Your task to perform on an android device: When is my next meeting? Image 0: 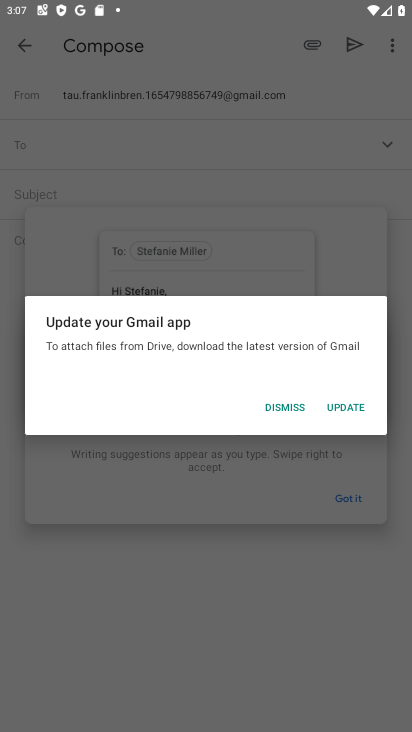
Step 0: press home button
Your task to perform on an android device: When is my next meeting? Image 1: 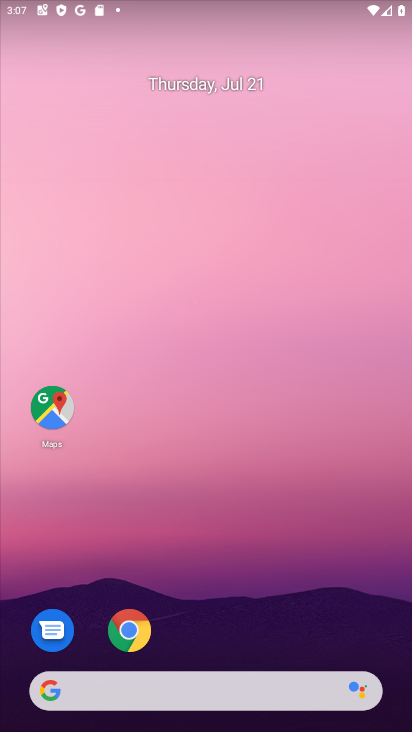
Step 1: drag from (265, 411) to (12, 166)
Your task to perform on an android device: When is my next meeting? Image 2: 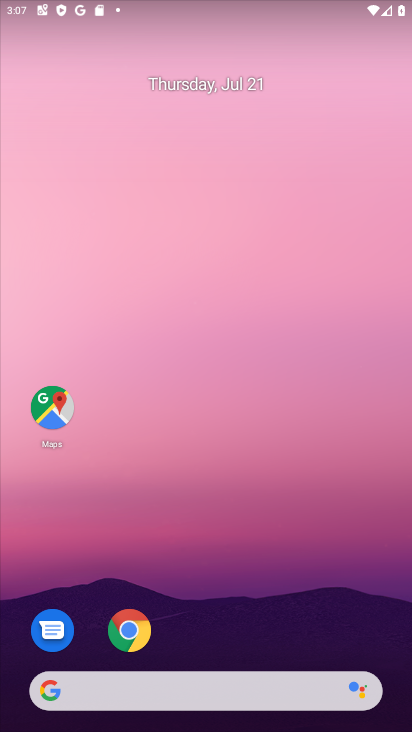
Step 2: drag from (275, 604) to (181, 13)
Your task to perform on an android device: When is my next meeting? Image 3: 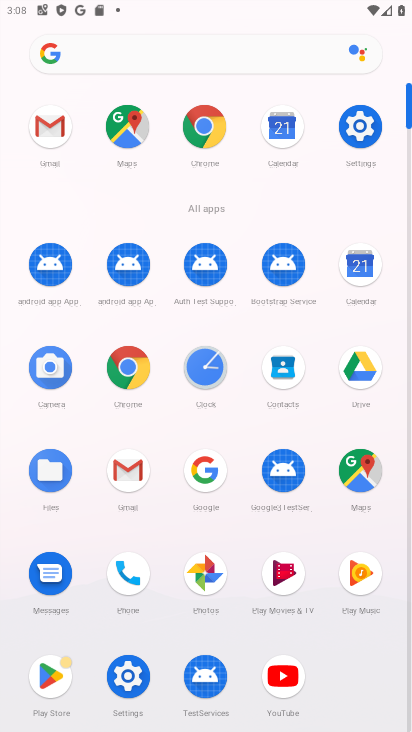
Step 3: click (355, 280)
Your task to perform on an android device: When is my next meeting? Image 4: 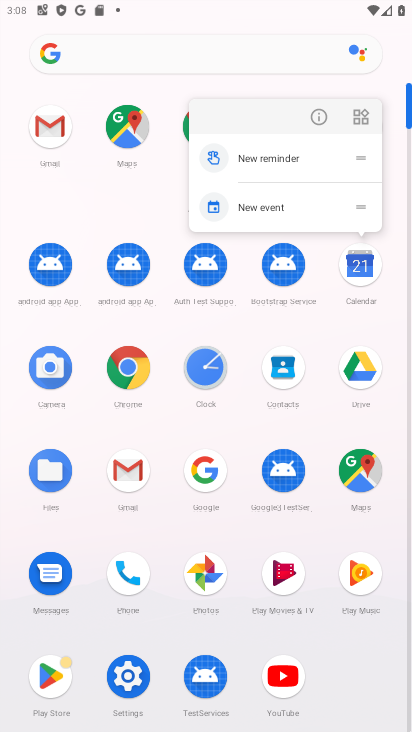
Step 4: click (353, 279)
Your task to perform on an android device: When is my next meeting? Image 5: 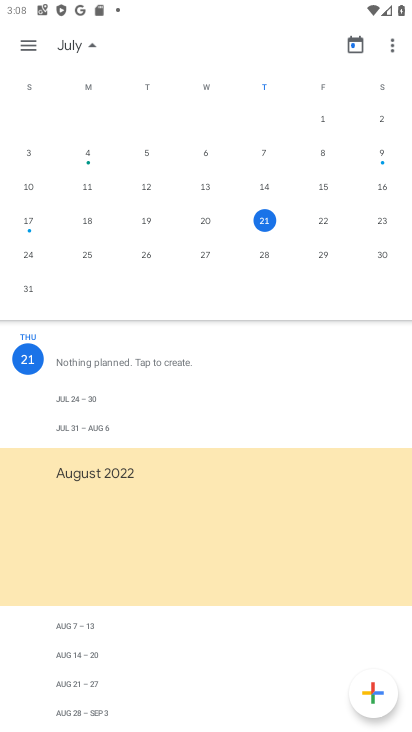
Step 5: task complete